Your task to perform on an android device: turn on javascript in the chrome app Image 0: 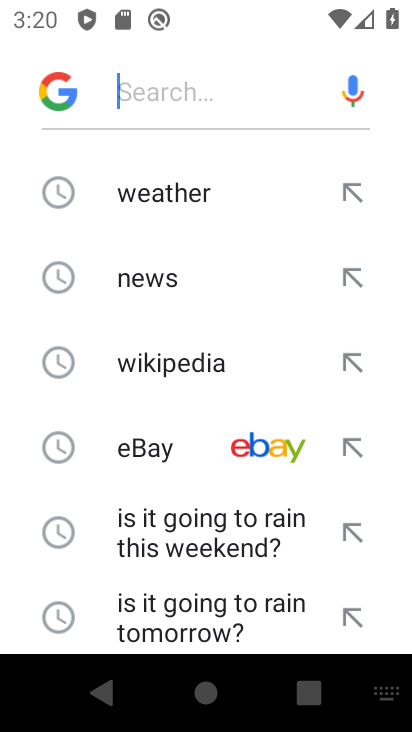
Step 0: press home button
Your task to perform on an android device: turn on javascript in the chrome app Image 1: 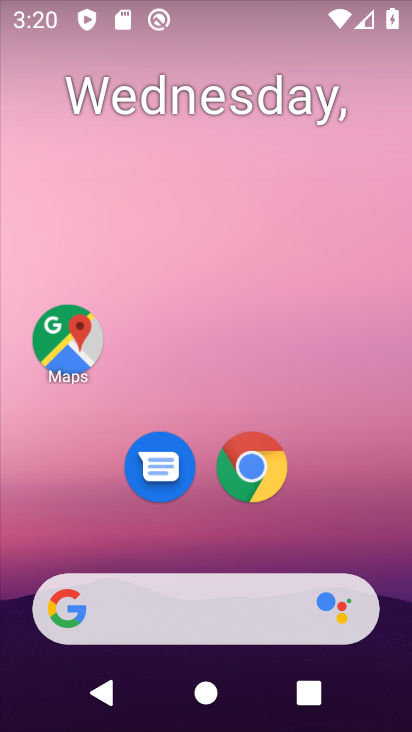
Step 1: drag from (332, 461) to (92, 18)
Your task to perform on an android device: turn on javascript in the chrome app Image 2: 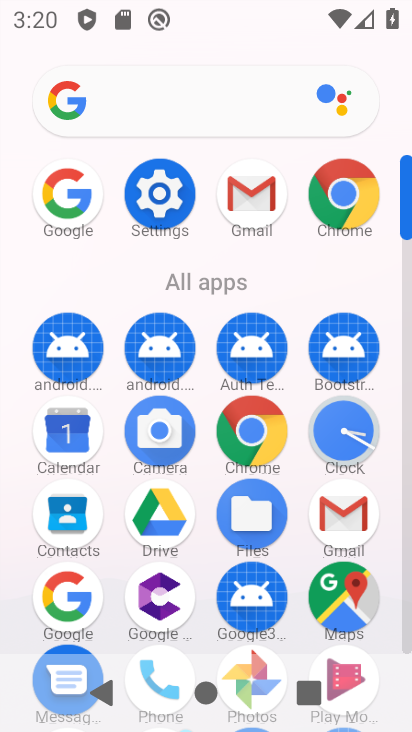
Step 2: click (267, 451)
Your task to perform on an android device: turn on javascript in the chrome app Image 3: 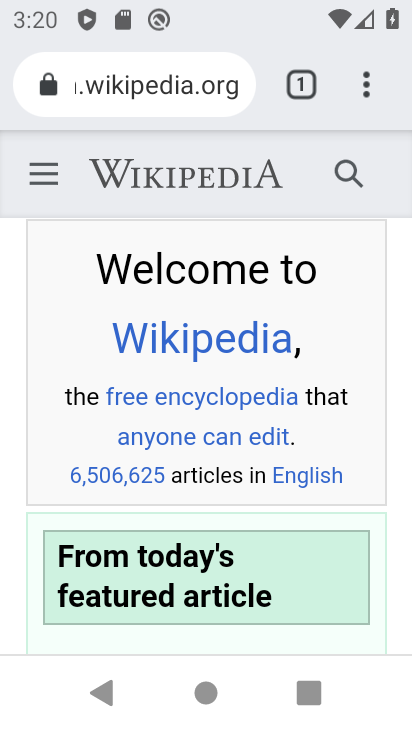
Step 3: click (368, 90)
Your task to perform on an android device: turn on javascript in the chrome app Image 4: 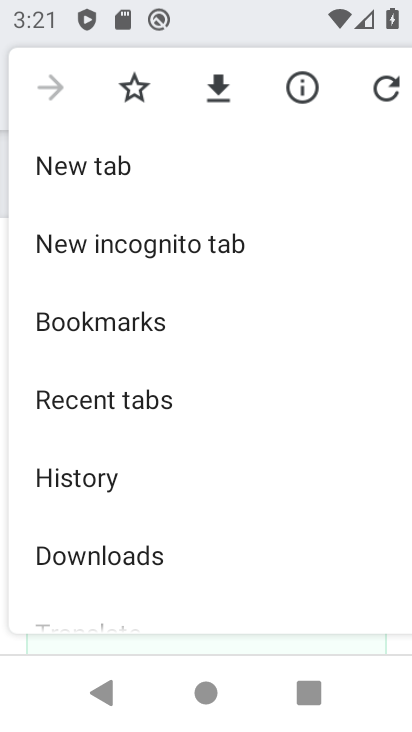
Step 4: drag from (247, 511) to (215, 23)
Your task to perform on an android device: turn on javascript in the chrome app Image 5: 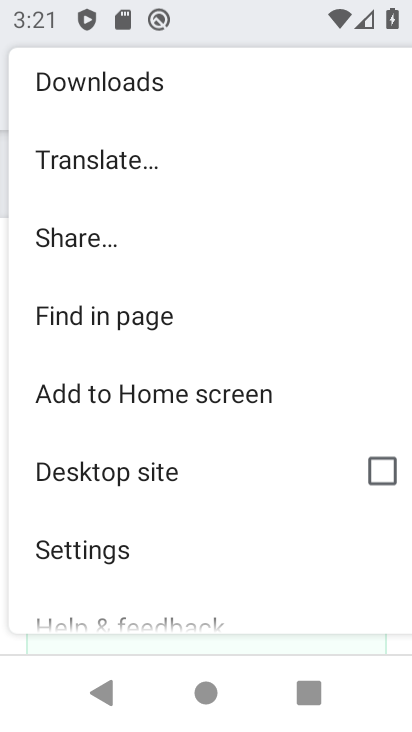
Step 5: click (167, 537)
Your task to perform on an android device: turn on javascript in the chrome app Image 6: 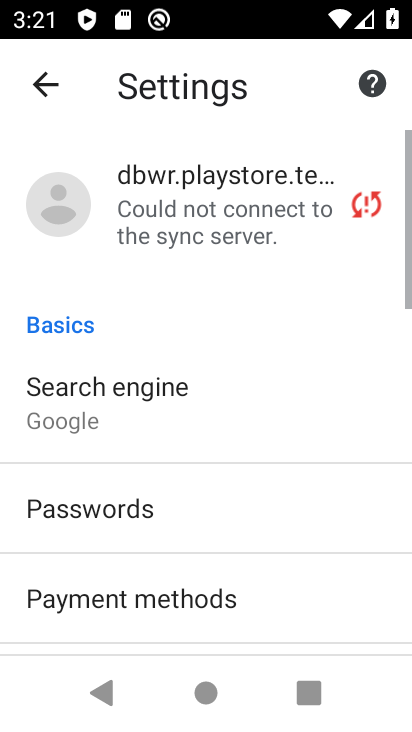
Step 6: drag from (250, 486) to (178, 29)
Your task to perform on an android device: turn on javascript in the chrome app Image 7: 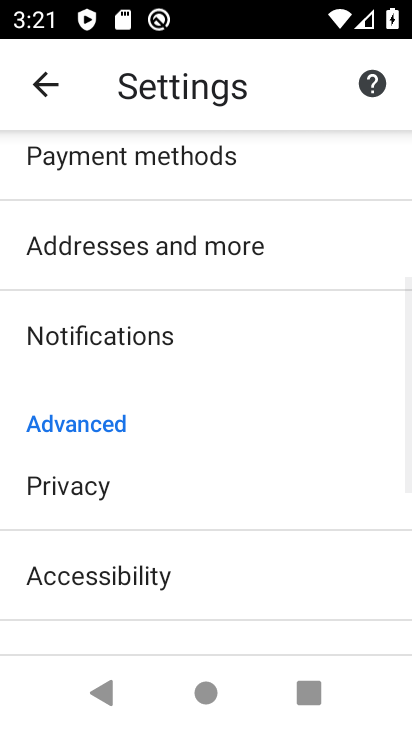
Step 7: drag from (204, 522) to (248, 198)
Your task to perform on an android device: turn on javascript in the chrome app Image 8: 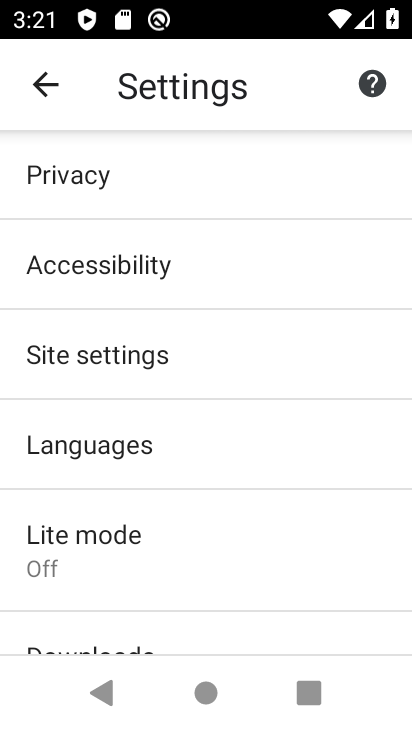
Step 8: click (134, 362)
Your task to perform on an android device: turn on javascript in the chrome app Image 9: 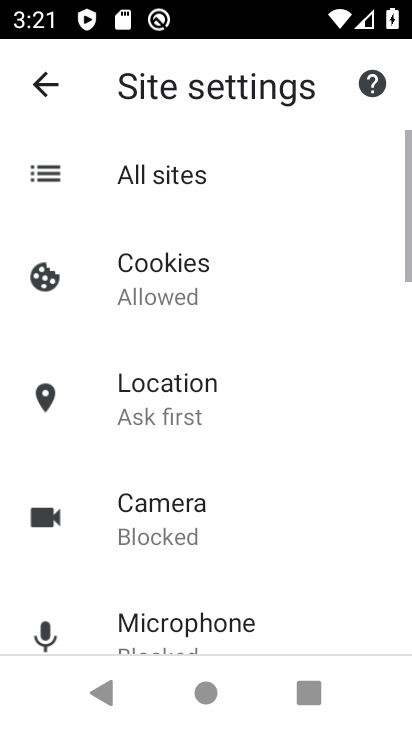
Step 9: drag from (210, 557) to (280, 112)
Your task to perform on an android device: turn on javascript in the chrome app Image 10: 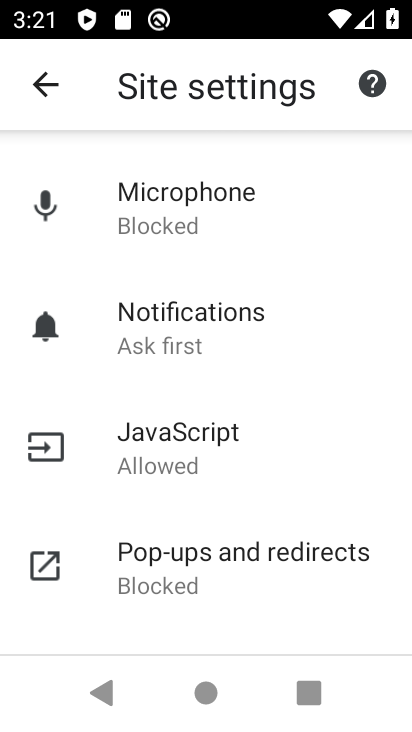
Step 10: click (179, 443)
Your task to perform on an android device: turn on javascript in the chrome app Image 11: 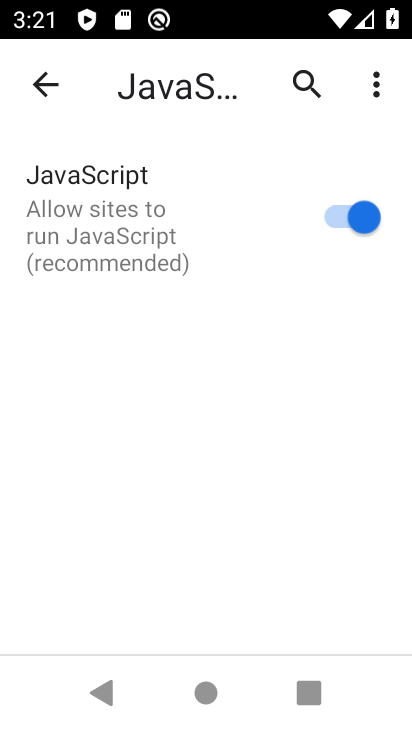
Step 11: task complete